Your task to perform on an android device: Toggle the flashlight Image 0: 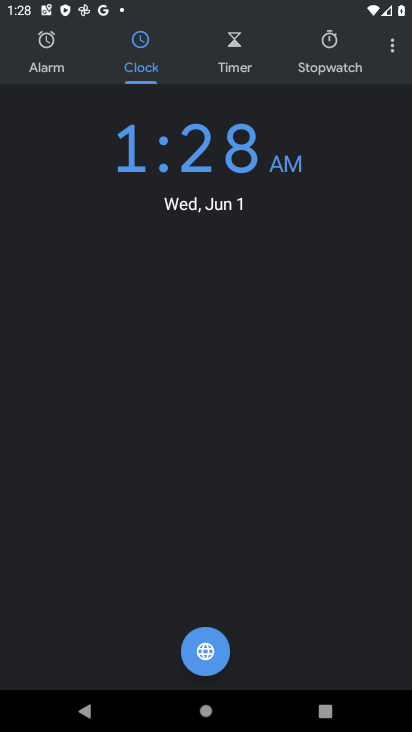
Step 0: press home button
Your task to perform on an android device: Toggle the flashlight Image 1: 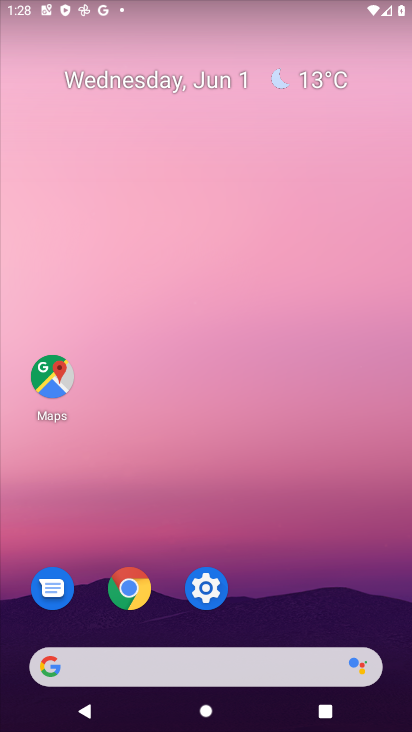
Step 1: click (206, 588)
Your task to perform on an android device: Toggle the flashlight Image 2: 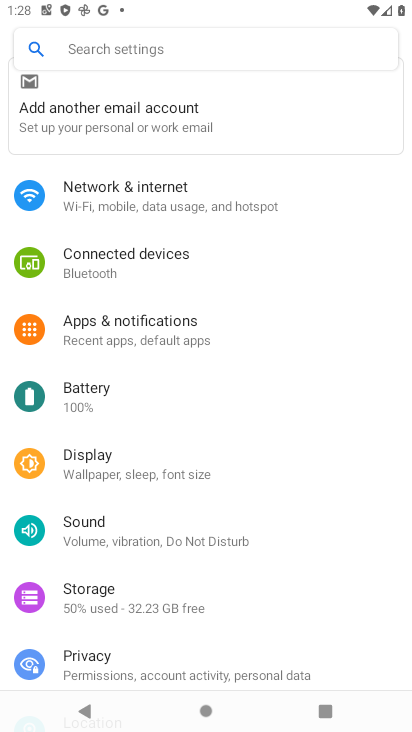
Step 2: click (117, 45)
Your task to perform on an android device: Toggle the flashlight Image 3: 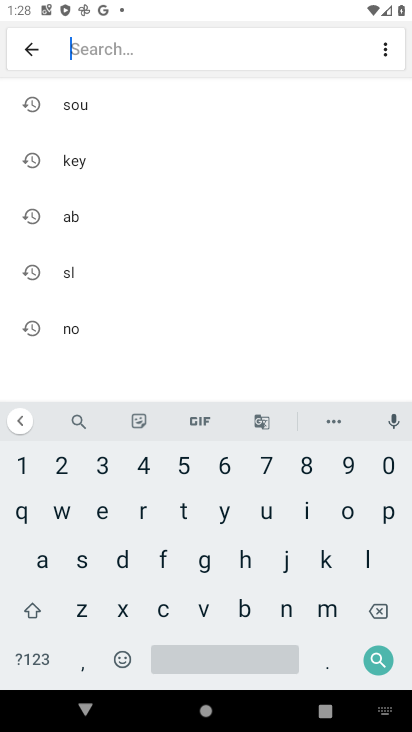
Step 3: click (159, 558)
Your task to perform on an android device: Toggle the flashlight Image 4: 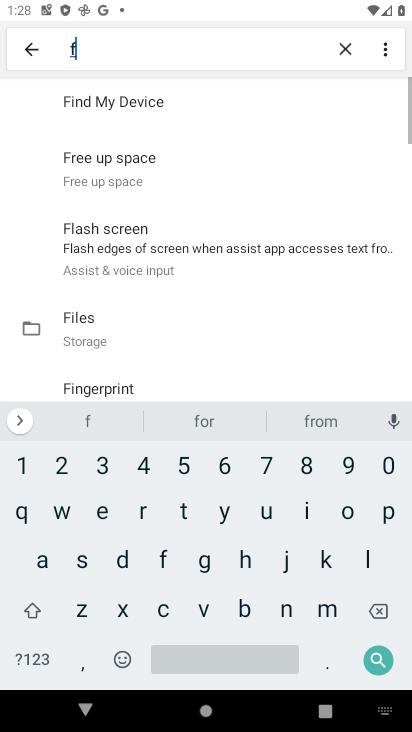
Step 4: click (366, 553)
Your task to perform on an android device: Toggle the flashlight Image 5: 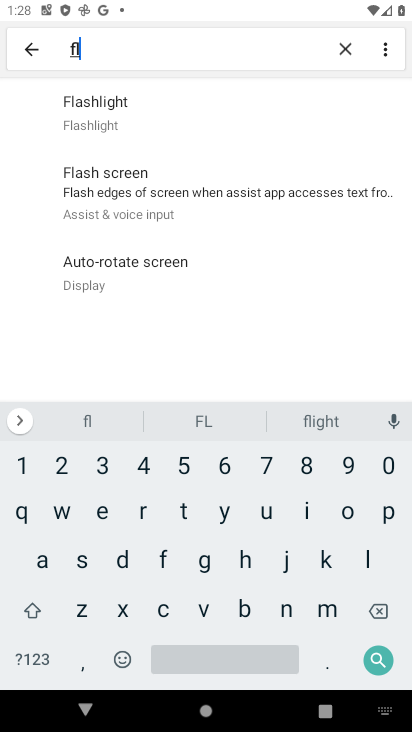
Step 5: click (134, 114)
Your task to perform on an android device: Toggle the flashlight Image 6: 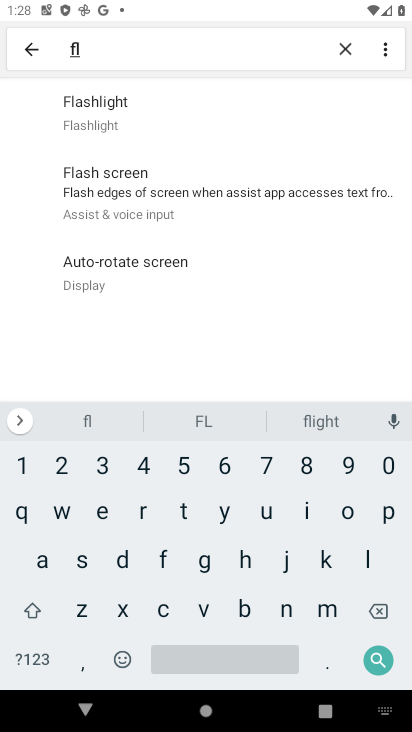
Step 6: click (142, 122)
Your task to perform on an android device: Toggle the flashlight Image 7: 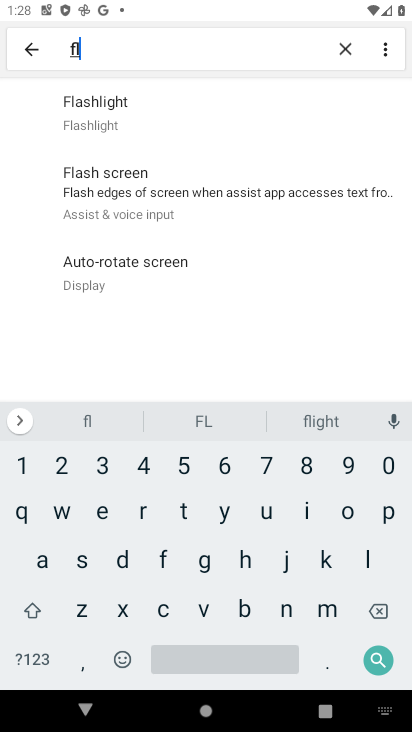
Step 7: task complete